Your task to perform on an android device: Clear the cart on bestbuy.com. Add energizer triple a to the cart on bestbuy.com, then select checkout. Image 0: 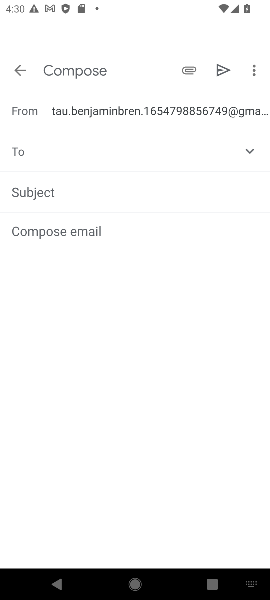
Step 0: press home button
Your task to perform on an android device: Clear the cart on bestbuy.com. Add energizer triple a to the cart on bestbuy.com, then select checkout. Image 1: 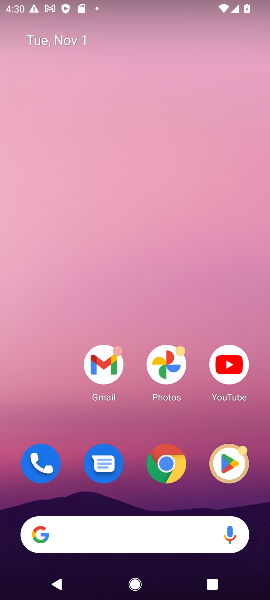
Step 1: click (172, 468)
Your task to perform on an android device: Clear the cart on bestbuy.com. Add energizer triple a to the cart on bestbuy.com, then select checkout. Image 2: 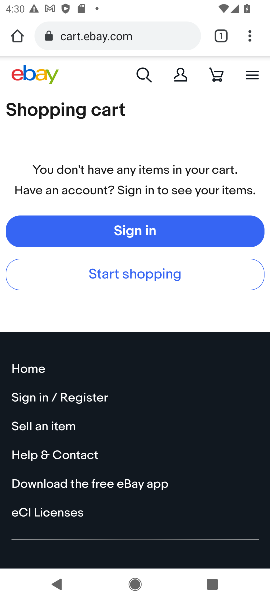
Step 2: click (147, 34)
Your task to perform on an android device: Clear the cart on bestbuy.com. Add energizer triple a to the cart on bestbuy.com, then select checkout. Image 3: 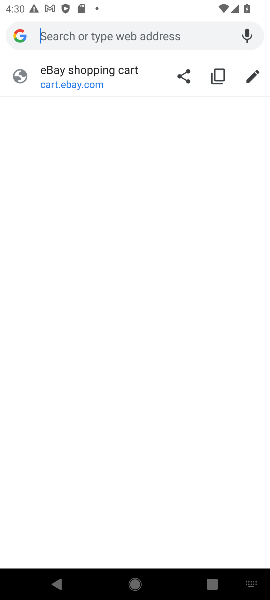
Step 3: type "bestbuy.com"
Your task to perform on an android device: Clear the cart on bestbuy.com. Add energizer triple a to the cart on bestbuy.com, then select checkout. Image 4: 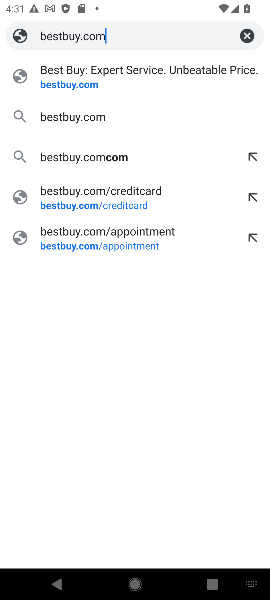
Step 4: press enter
Your task to perform on an android device: Clear the cart on bestbuy.com. Add energizer triple a to the cart on bestbuy.com, then select checkout. Image 5: 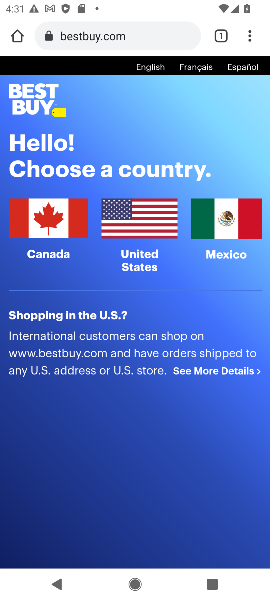
Step 5: click (132, 229)
Your task to perform on an android device: Clear the cart on bestbuy.com. Add energizer triple a to the cart on bestbuy.com, then select checkout. Image 6: 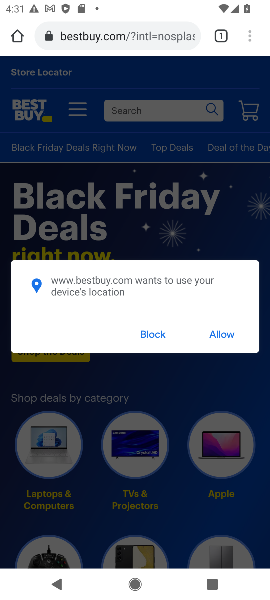
Step 6: click (242, 114)
Your task to perform on an android device: Clear the cart on bestbuy.com. Add energizer triple a to the cart on bestbuy.com, then select checkout. Image 7: 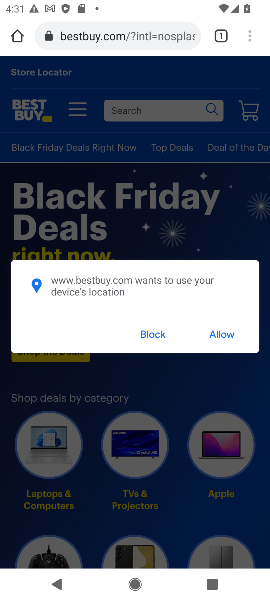
Step 7: click (220, 337)
Your task to perform on an android device: Clear the cart on bestbuy.com. Add energizer triple a to the cart on bestbuy.com, then select checkout. Image 8: 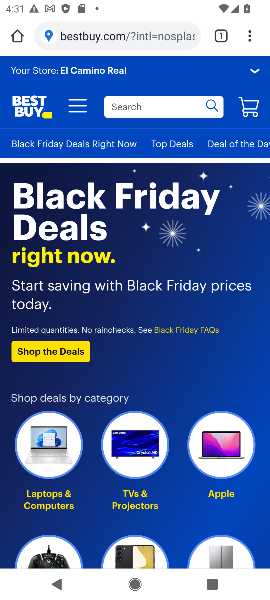
Step 8: click (251, 108)
Your task to perform on an android device: Clear the cart on bestbuy.com. Add energizer triple a to the cart on bestbuy.com, then select checkout. Image 9: 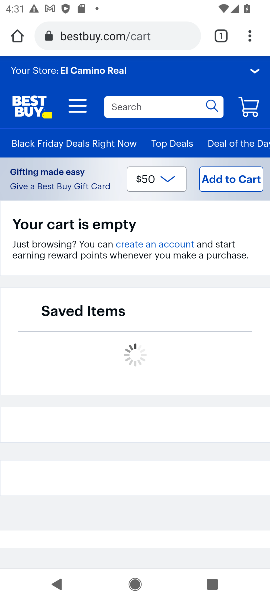
Step 9: click (187, 103)
Your task to perform on an android device: Clear the cart on bestbuy.com. Add energizer triple a to the cart on bestbuy.com, then select checkout. Image 10: 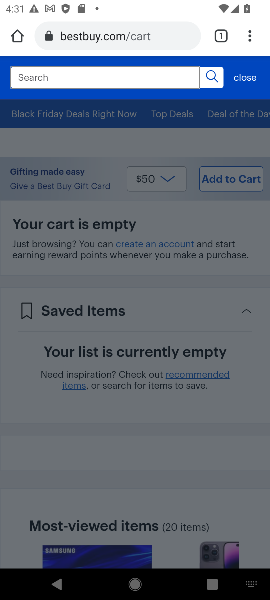
Step 10: type "energizer triple a"
Your task to perform on an android device: Clear the cart on bestbuy.com. Add energizer triple a to the cart on bestbuy.com, then select checkout. Image 11: 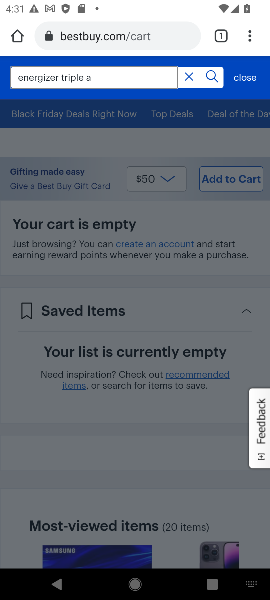
Step 11: press enter
Your task to perform on an android device: Clear the cart on bestbuy.com. Add energizer triple a to the cart on bestbuy.com, then select checkout. Image 12: 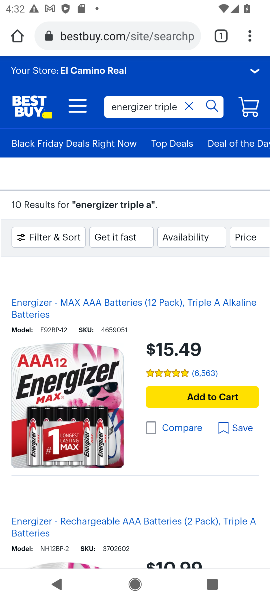
Step 12: click (102, 399)
Your task to perform on an android device: Clear the cart on bestbuy.com. Add energizer triple a to the cart on bestbuy.com, then select checkout. Image 13: 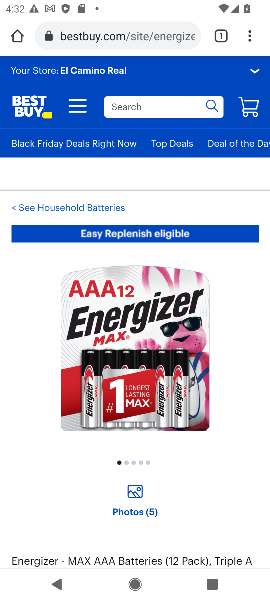
Step 13: drag from (235, 518) to (124, 72)
Your task to perform on an android device: Clear the cart on bestbuy.com. Add energizer triple a to the cart on bestbuy.com, then select checkout. Image 14: 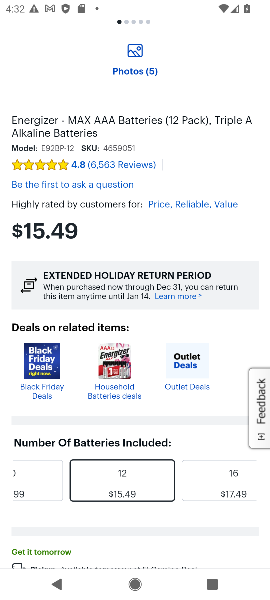
Step 14: drag from (189, 420) to (143, 239)
Your task to perform on an android device: Clear the cart on bestbuy.com. Add energizer triple a to the cart on bestbuy.com, then select checkout. Image 15: 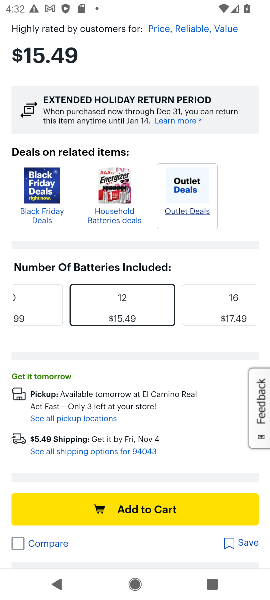
Step 15: click (124, 504)
Your task to perform on an android device: Clear the cart on bestbuy.com. Add energizer triple a to the cart on bestbuy.com, then select checkout. Image 16: 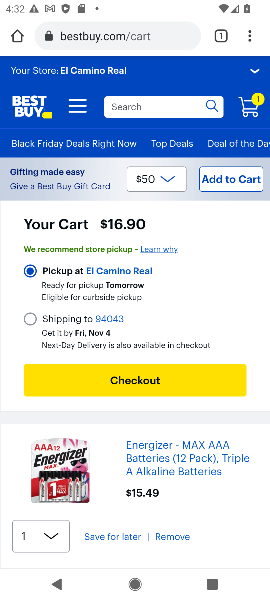
Step 16: click (147, 382)
Your task to perform on an android device: Clear the cart on bestbuy.com. Add energizer triple a to the cart on bestbuy.com, then select checkout. Image 17: 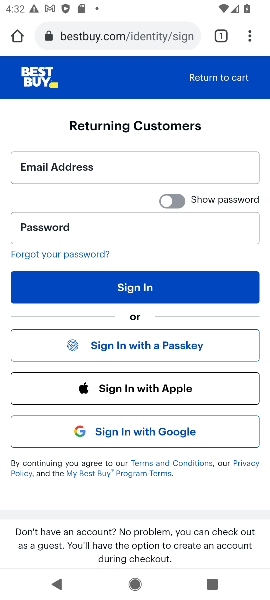
Step 17: task complete